Your task to perform on an android device: show emergency info Image 0: 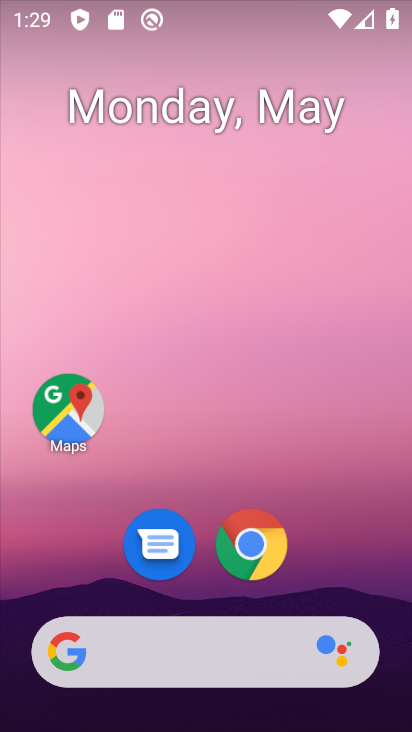
Step 0: drag from (377, 580) to (374, 243)
Your task to perform on an android device: show emergency info Image 1: 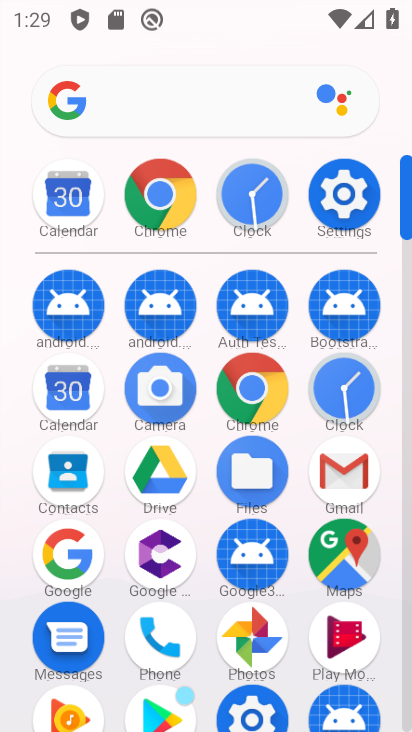
Step 1: click (273, 709)
Your task to perform on an android device: show emergency info Image 2: 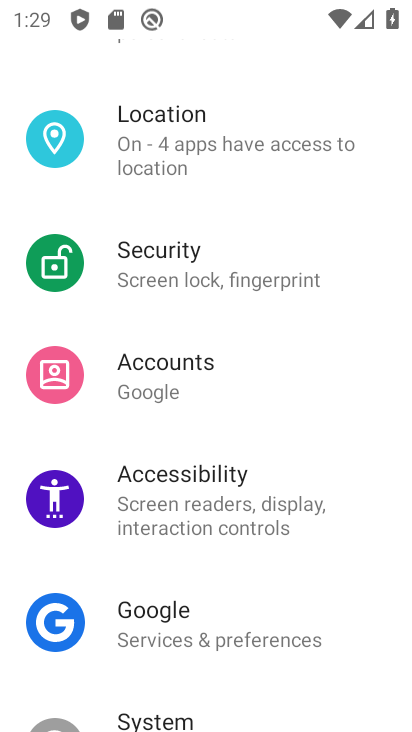
Step 2: drag from (385, 195) to (357, 308)
Your task to perform on an android device: show emergency info Image 3: 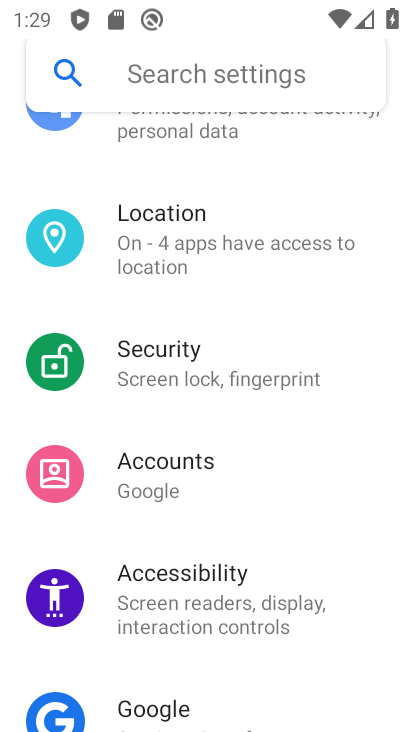
Step 3: drag from (361, 161) to (352, 273)
Your task to perform on an android device: show emergency info Image 4: 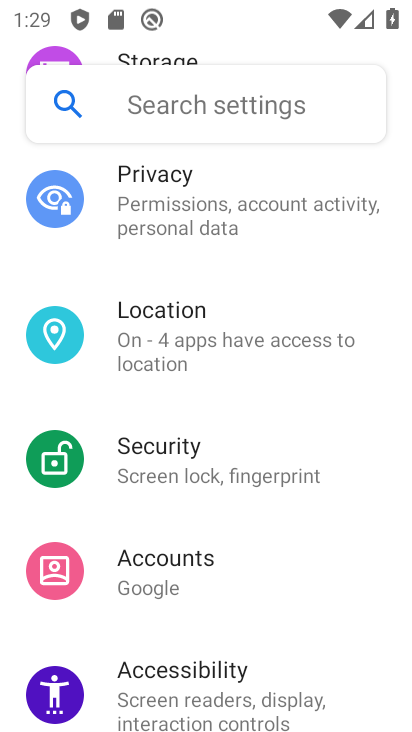
Step 4: drag from (358, 175) to (339, 310)
Your task to perform on an android device: show emergency info Image 5: 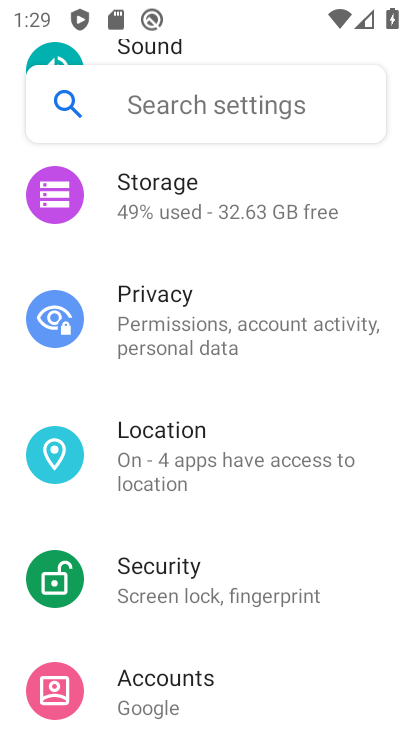
Step 5: drag from (340, 192) to (331, 283)
Your task to perform on an android device: show emergency info Image 6: 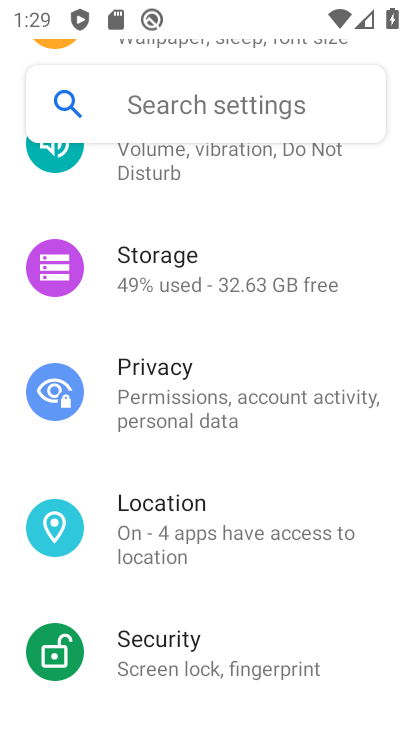
Step 6: drag from (339, 224) to (338, 300)
Your task to perform on an android device: show emergency info Image 7: 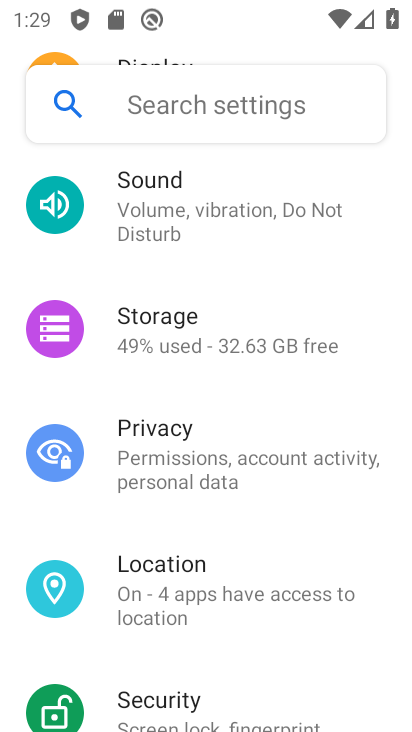
Step 7: drag from (345, 167) to (331, 274)
Your task to perform on an android device: show emergency info Image 8: 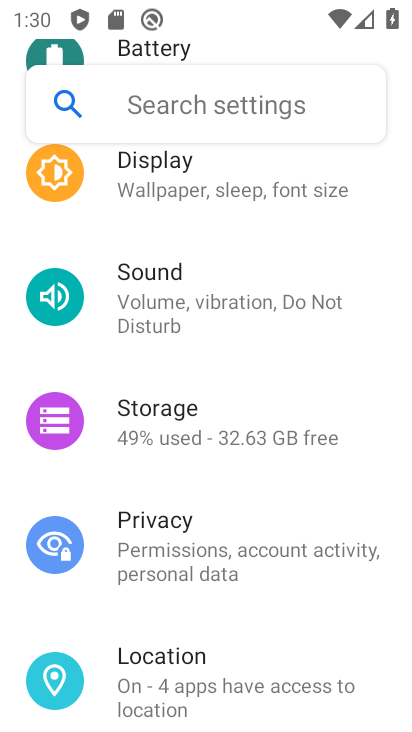
Step 8: drag from (354, 467) to (371, 333)
Your task to perform on an android device: show emergency info Image 9: 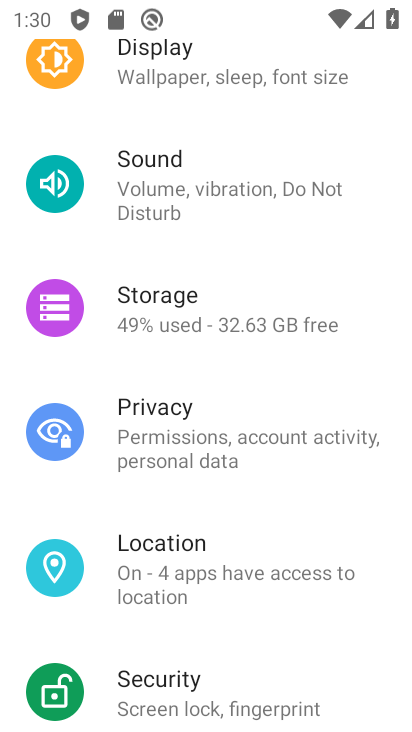
Step 9: drag from (348, 498) to (363, 392)
Your task to perform on an android device: show emergency info Image 10: 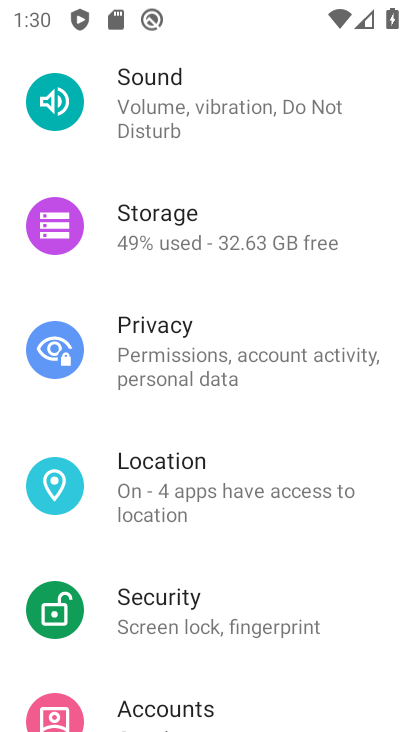
Step 10: drag from (352, 462) to (364, 413)
Your task to perform on an android device: show emergency info Image 11: 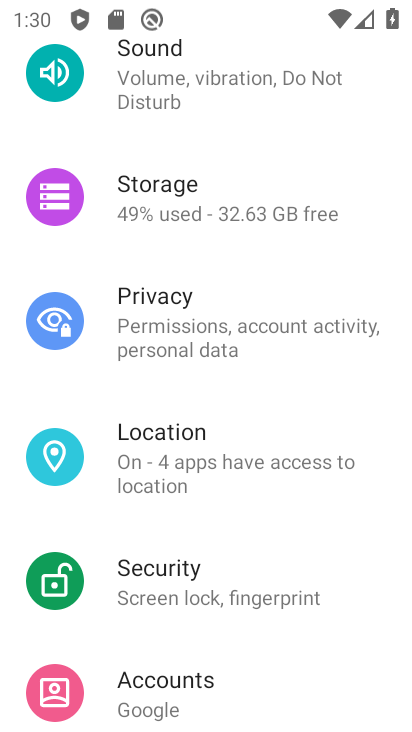
Step 11: drag from (364, 502) to (377, 396)
Your task to perform on an android device: show emergency info Image 12: 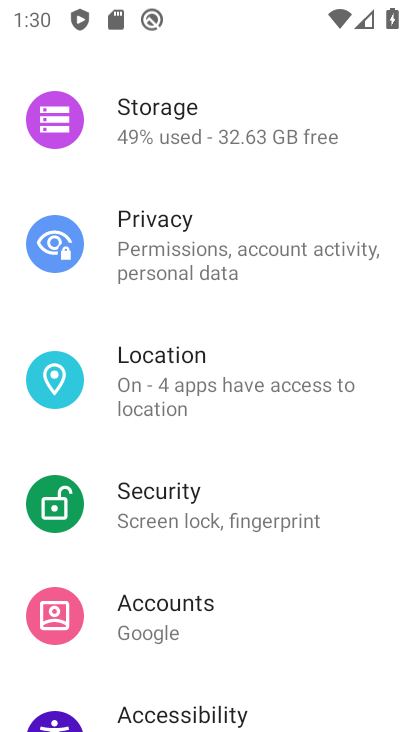
Step 12: drag from (338, 480) to (348, 423)
Your task to perform on an android device: show emergency info Image 13: 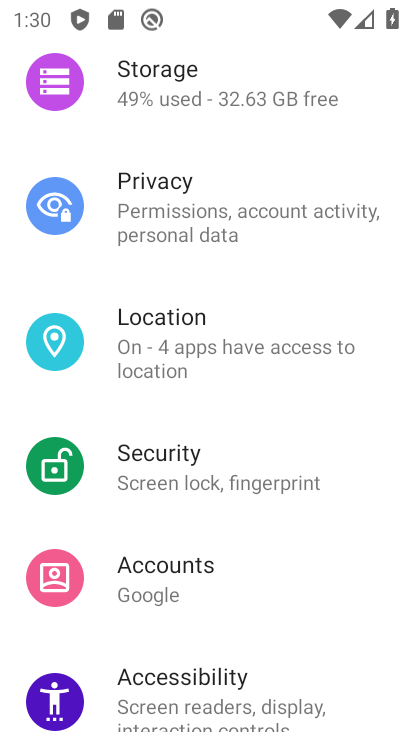
Step 13: drag from (341, 462) to (347, 426)
Your task to perform on an android device: show emergency info Image 14: 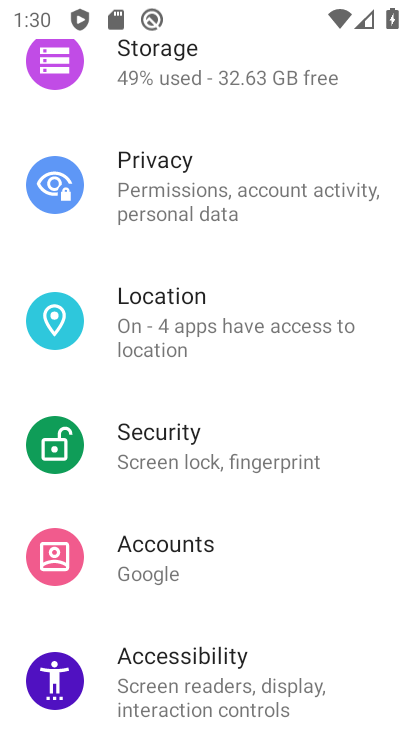
Step 14: drag from (349, 506) to (362, 392)
Your task to perform on an android device: show emergency info Image 15: 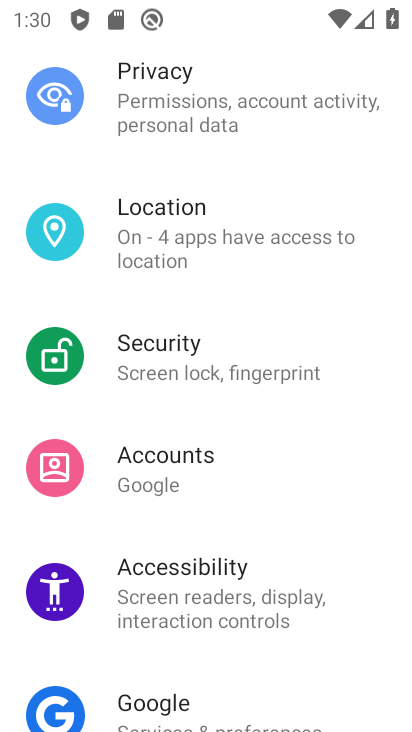
Step 15: drag from (339, 519) to (359, 436)
Your task to perform on an android device: show emergency info Image 16: 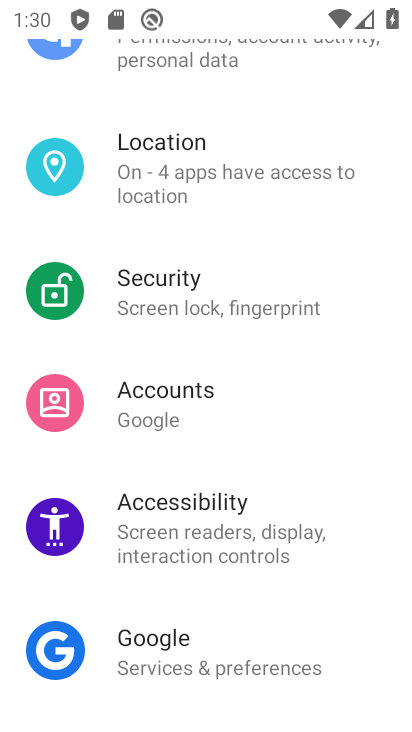
Step 16: drag from (345, 567) to (352, 385)
Your task to perform on an android device: show emergency info Image 17: 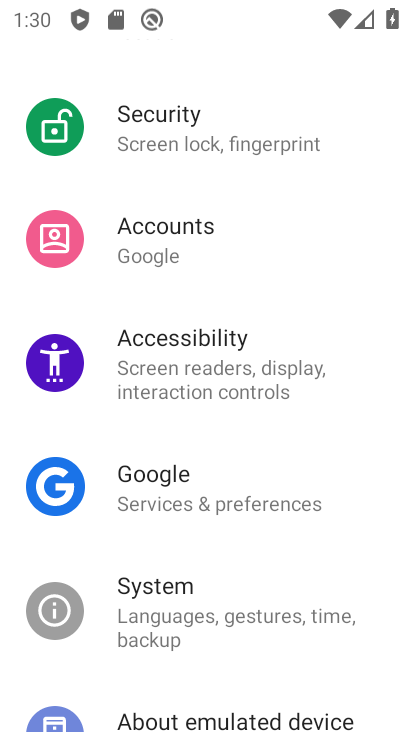
Step 17: drag from (336, 593) to (366, 409)
Your task to perform on an android device: show emergency info Image 18: 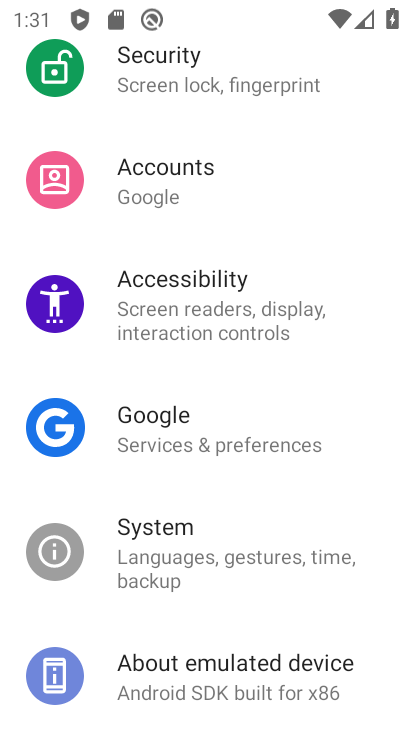
Step 18: click (289, 646)
Your task to perform on an android device: show emergency info Image 19: 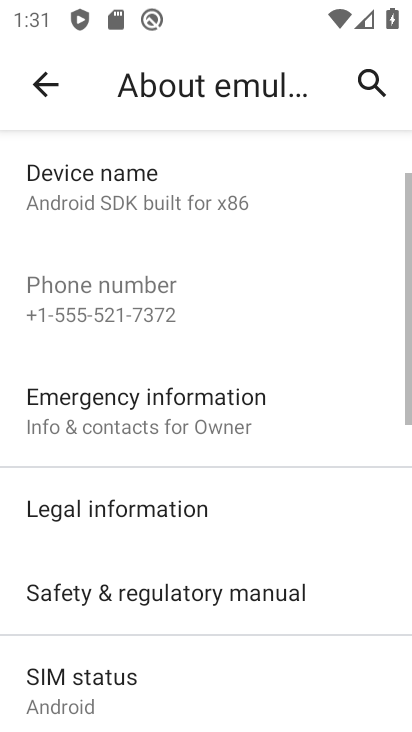
Step 19: click (288, 421)
Your task to perform on an android device: show emergency info Image 20: 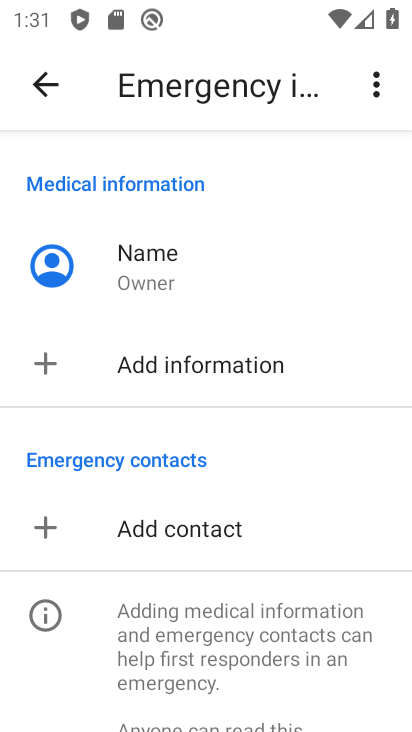
Step 20: task complete